Your task to perform on an android device: open app "Walmart Shopping & Grocery" Image 0: 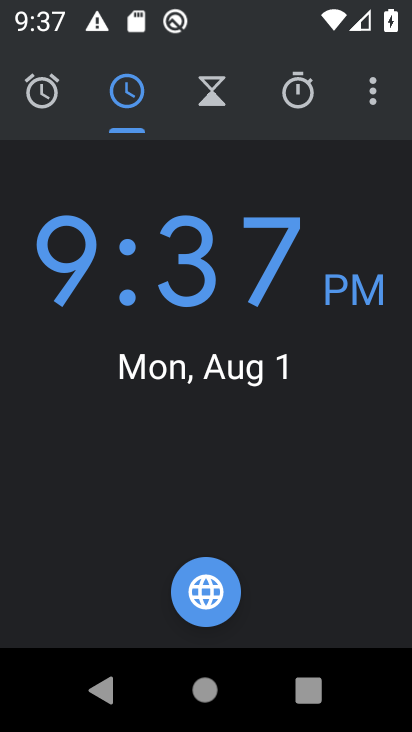
Step 0: press home button
Your task to perform on an android device: open app "Walmart Shopping & Grocery" Image 1: 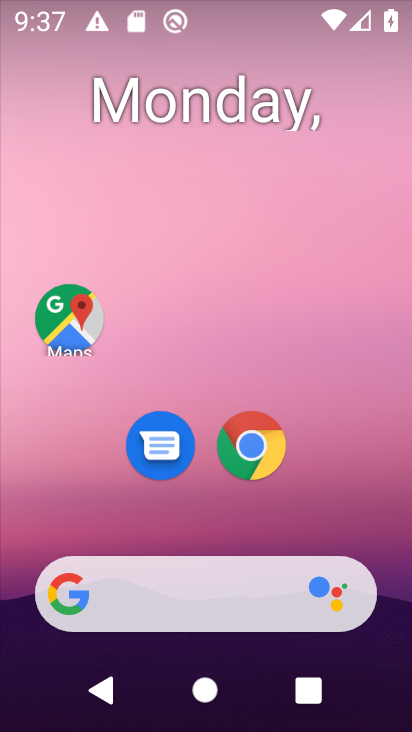
Step 1: drag from (401, 623) to (159, 9)
Your task to perform on an android device: open app "Walmart Shopping & Grocery" Image 2: 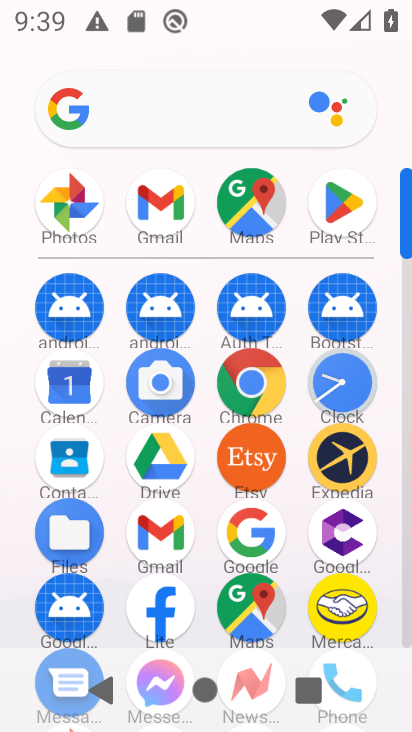
Step 2: click (323, 185)
Your task to perform on an android device: open app "Walmart Shopping & Grocery" Image 3: 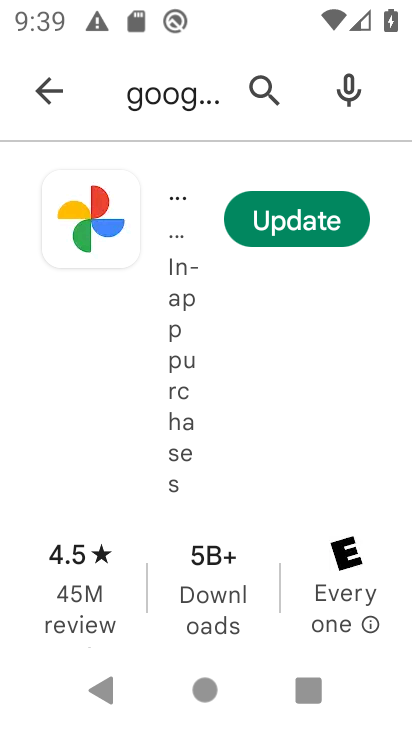
Step 3: press back button
Your task to perform on an android device: open app "Walmart Shopping & Grocery" Image 4: 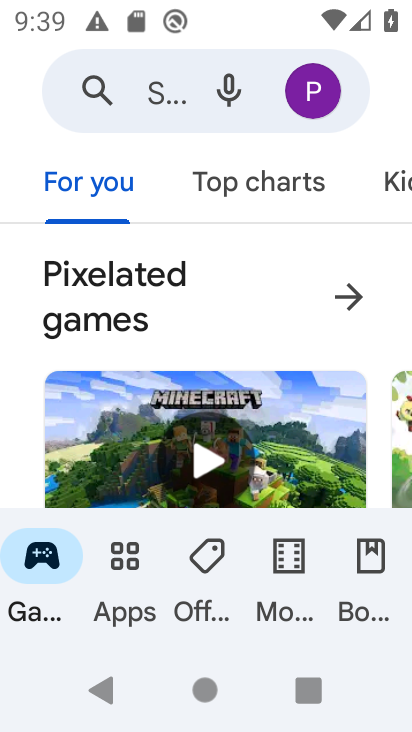
Step 4: click (184, 116)
Your task to perform on an android device: open app "Walmart Shopping & Grocery" Image 5: 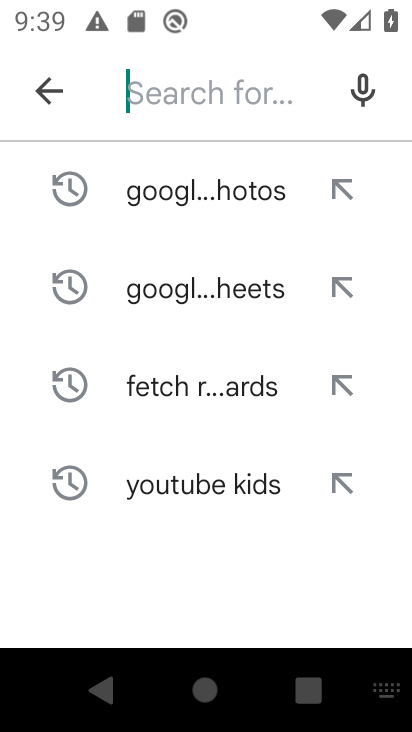
Step 5: type "Walmart Shopping & Grocery"
Your task to perform on an android device: open app "Walmart Shopping & Grocery" Image 6: 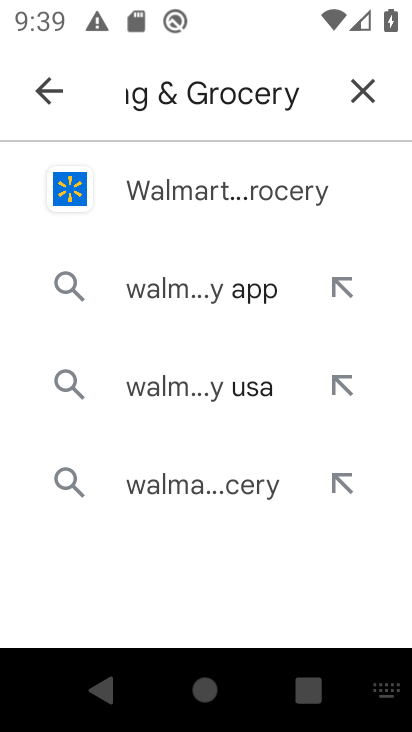
Step 6: click (259, 224)
Your task to perform on an android device: open app "Walmart Shopping & Grocery" Image 7: 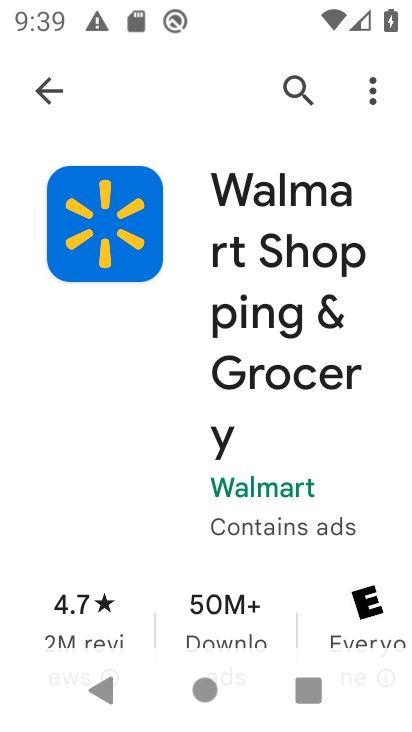
Step 7: task complete